Your task to perform on an android device: Go to settings Image 0: 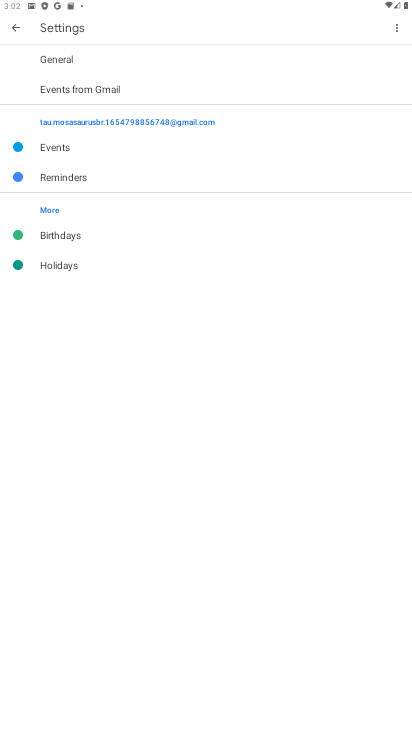
Step 0: press home button
Your task to perform on an android device: Go to settings Image 1: 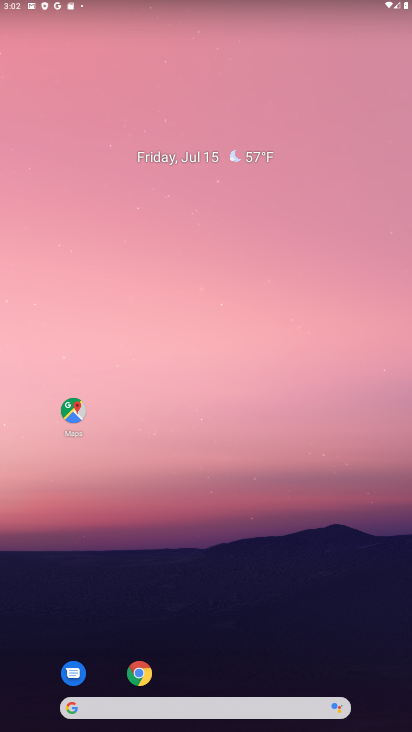
Step 1: drag from (206, 609) to (255, 87)
Your task to perform on an android device: Go to settings Image 2: 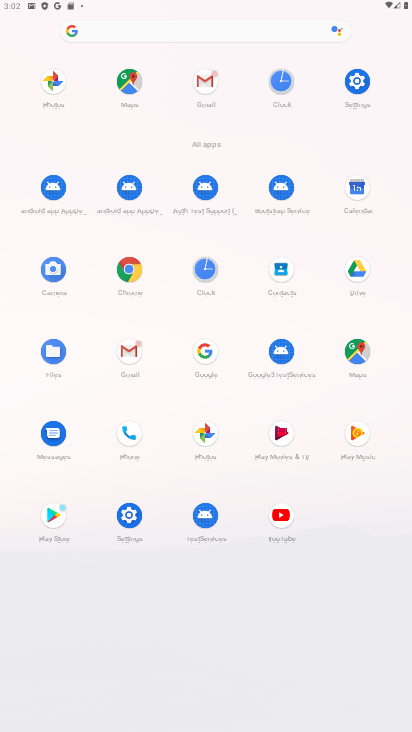
Step 2: click (137, 512)
Your task to perform on an android device: Go to settings Image 3: 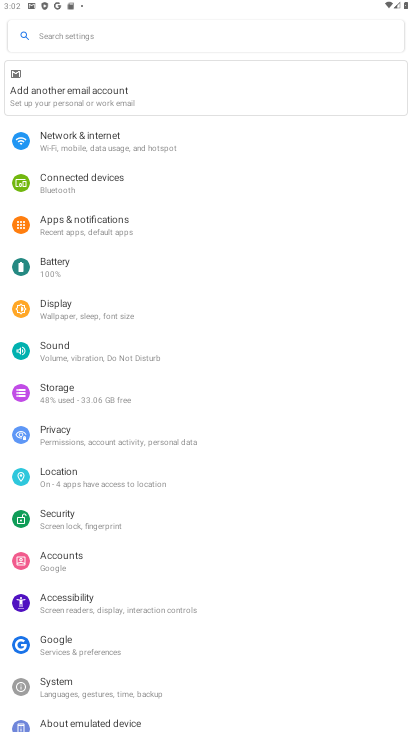
Step 3: task complete